Your task to perform on an android device: toggle notifications settings in the gmail app Image 0: 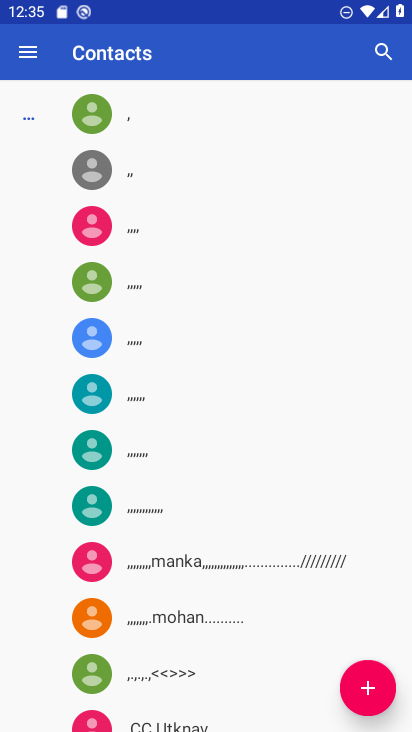
Step 0: press home button
Your task to perform on an android device: toggle notifications settings in the gmail app Image 1: 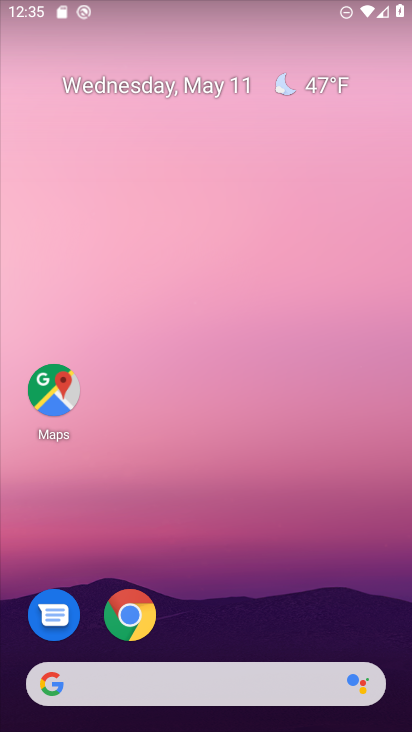
Step 1: drag from (290, 581) to (303, 172)
Your task to perform on an android device: toggle notifications settings in the gmail app Image 2: 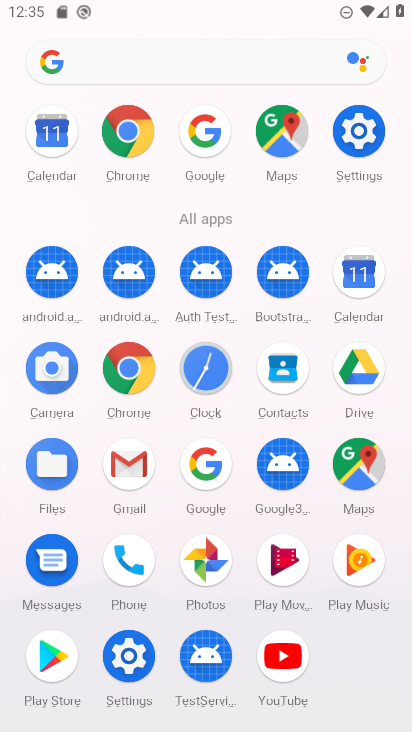
Step 2: click (138, 462)
Your task to perform on an android device: toggle notifications settings in the gmail app Image 3: 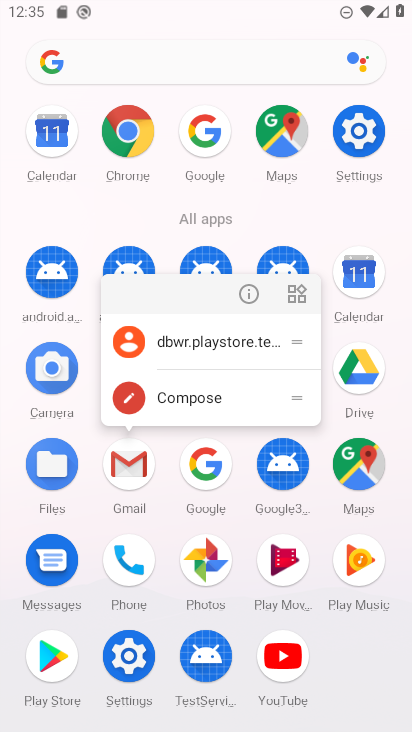
Step 3: click (141, 466)
Your task to perform on an android device: toggle notifications settings in the gmail app Image 4: 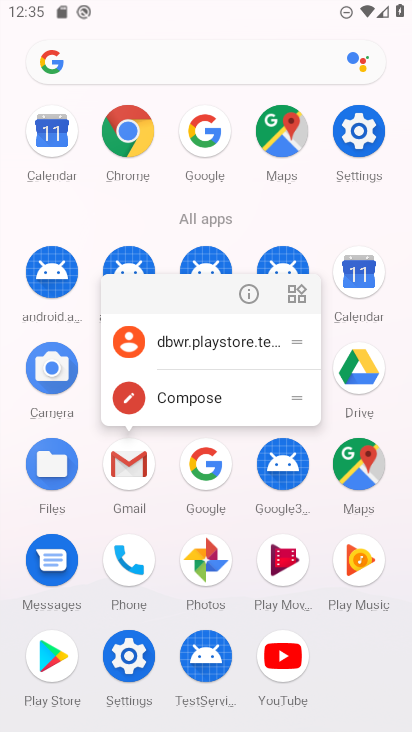
Step 4: click (141, 465)
Your task to perform on an android device: toggle notifications settings in the gmail app Image 5: 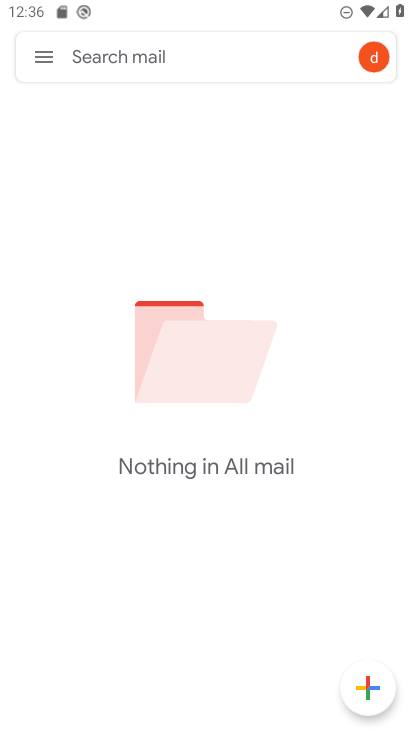
Step 5: click (51, 50)
Your task to perform on an android device: toggle notifications settings in the gmail app Image 6: 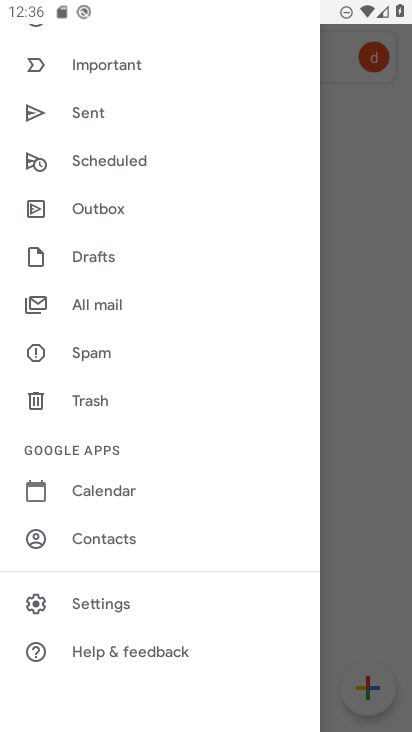
Step 6: click (116, 607)
Your task to perform on an android device: toggle notifications settings in the gmail app Image 7: 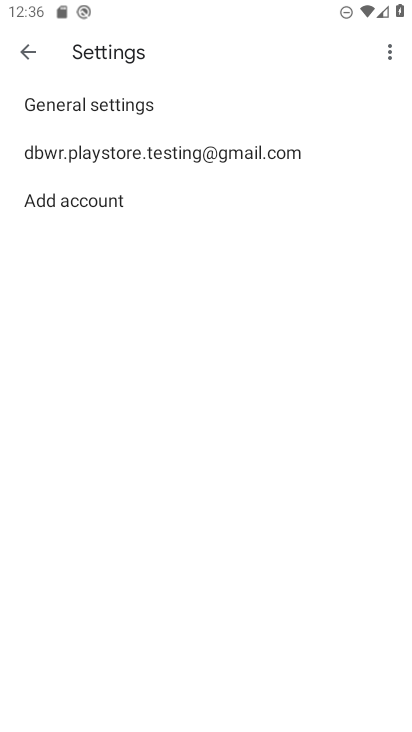
Step 7: click (19, 50)
Your task to perform on an android device: toggle notifications settings in the gmail app Image 8: 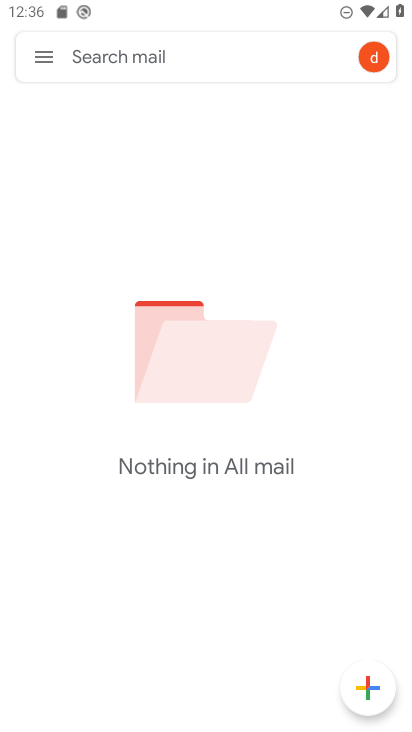
Step 8: click (38, 68)
Your task to perform on an android device: toggle notifications settings in the gmail app Image 9: 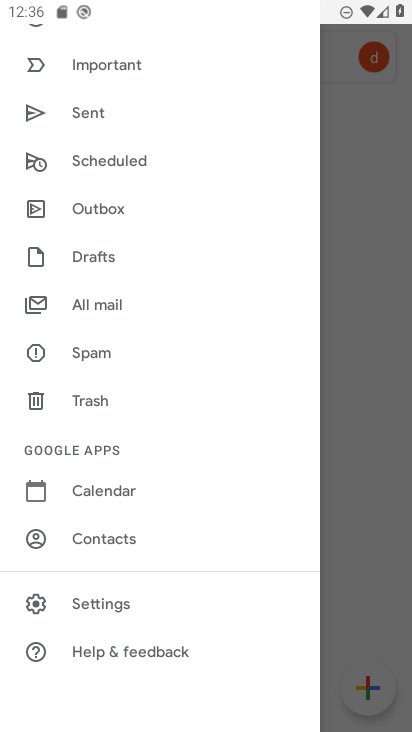
Step 9: click (132, 616)
Your task to perform on an android device: toggle notifications settings in the gmail app Image 10: 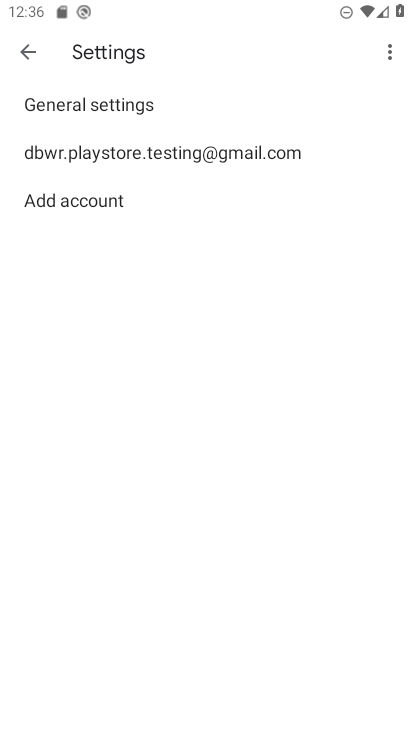
Step 10: click (98, 163)
Your task to perform on an android device: toggle notifications settings in the gmail app Image 11: 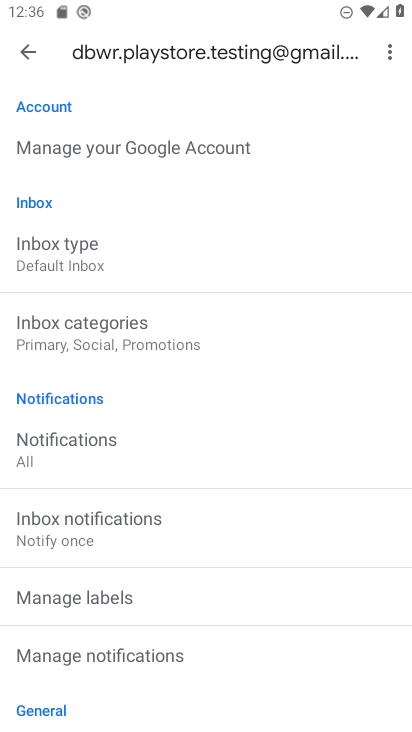
Step 11: click (69, 462)
Your task to perform on an android device: toggle notifications settings in the gmail app Image 12: 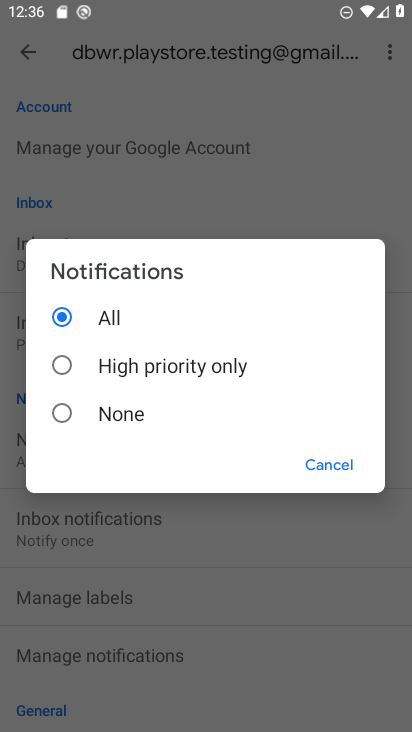
Step 12: click (68, 358)
Your task to perform on an android device: toggle notifications settings in the gmail app Image 13: 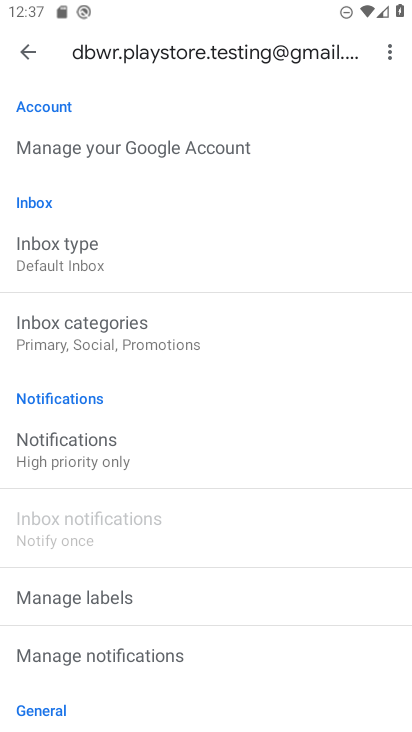
Step 13: task complete